Your task to perform on an android device: Open the phone app and click the voicemail tab. Image 0: 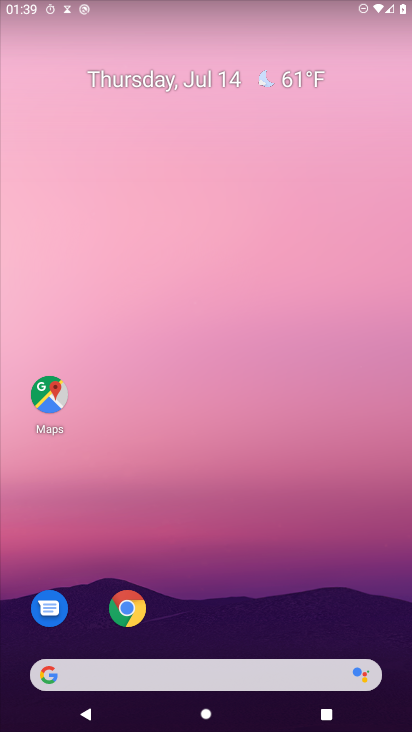
Step 0: press home button
Your task to perform on an android device: Open the phone app and click the voicemail tab. Image 1: 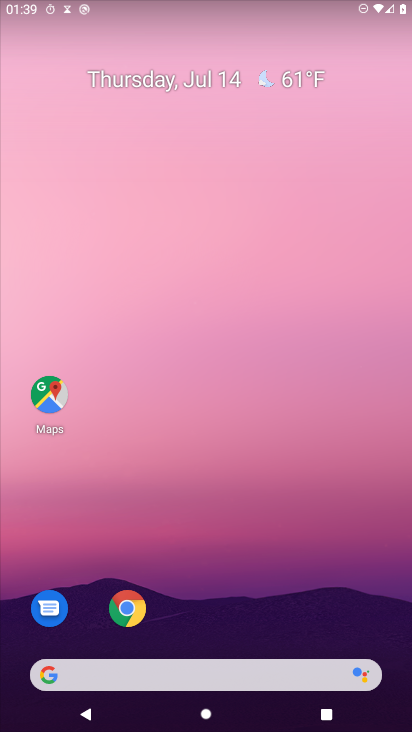
Step 1: drag from (345, 582) to (343, 181)
Your task to perform on an android device: Open the phone app and click the voicemail tab. Image 2: 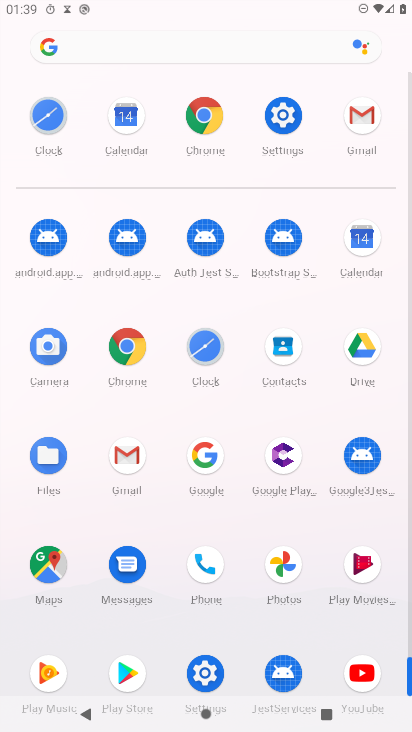
Step 2: click (208, 568)
Your task to perform on an android device: Open the phone app and click the voicemail tab. Image 3: 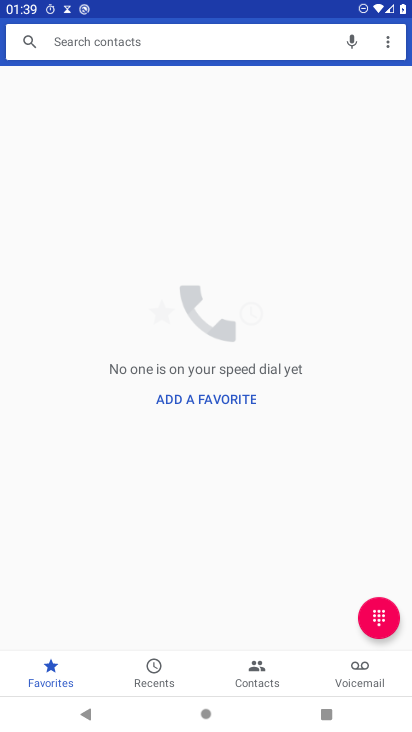
Step 3: click (357, 675)
Your task to perform on an android device: Open the phone app and click the voicemail tab. Image 4: 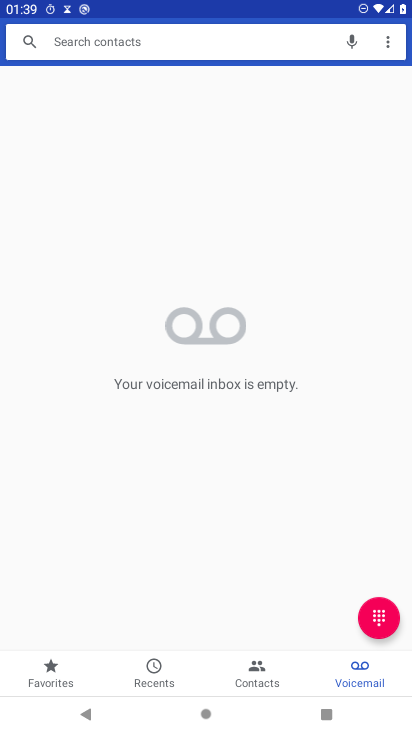
Step 4: task complete